Your task to perform on an android device: Check the news Image 0: 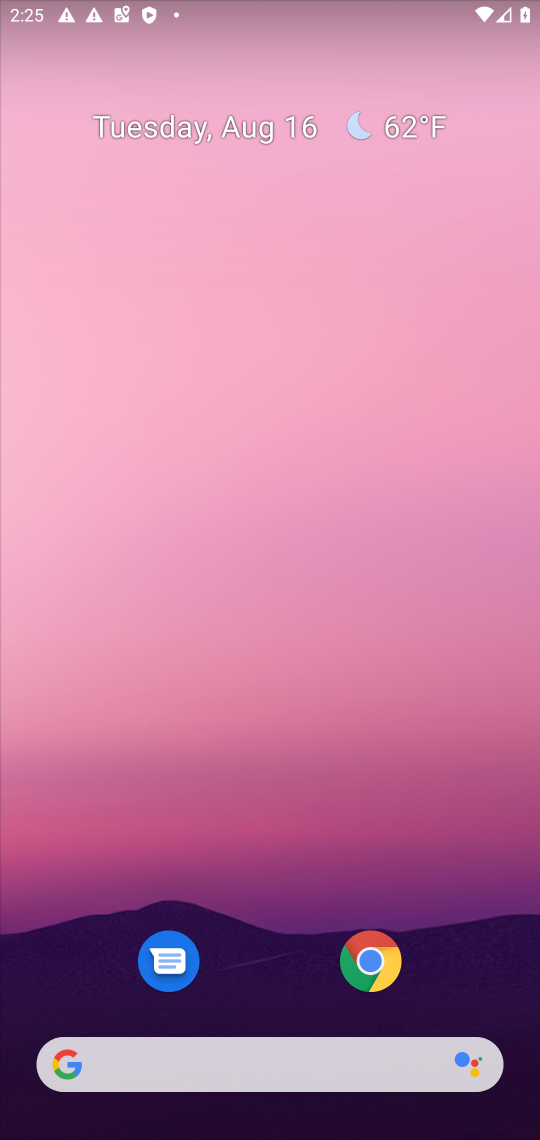
Step 0: drag from (333, 278) to (256, 126)
Your task to perform on an android device: Check the news Image 1: 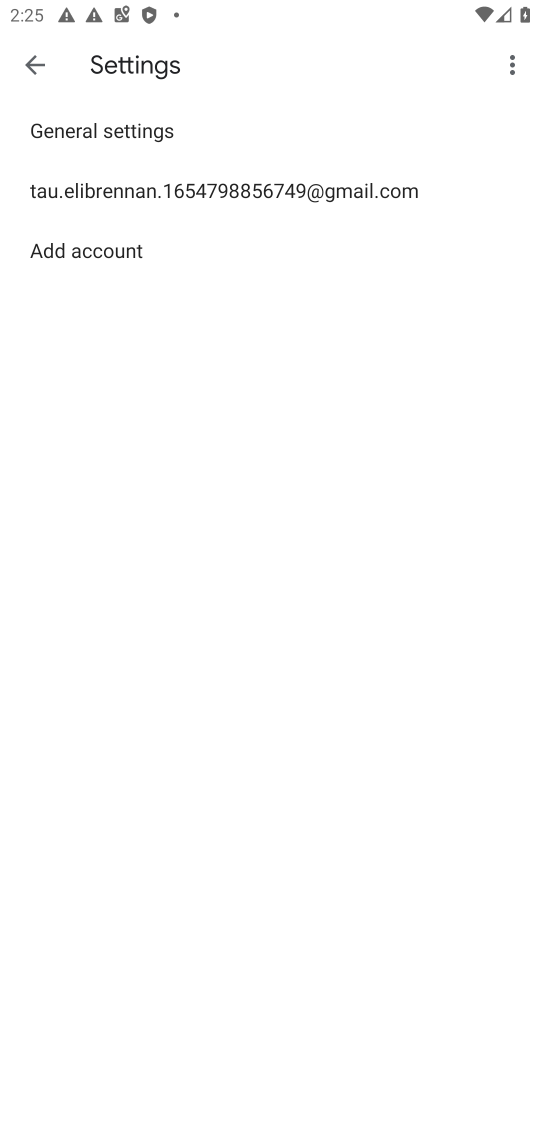
Step 1: press home button
Your task to perform on an android device: Check the news Image 2: 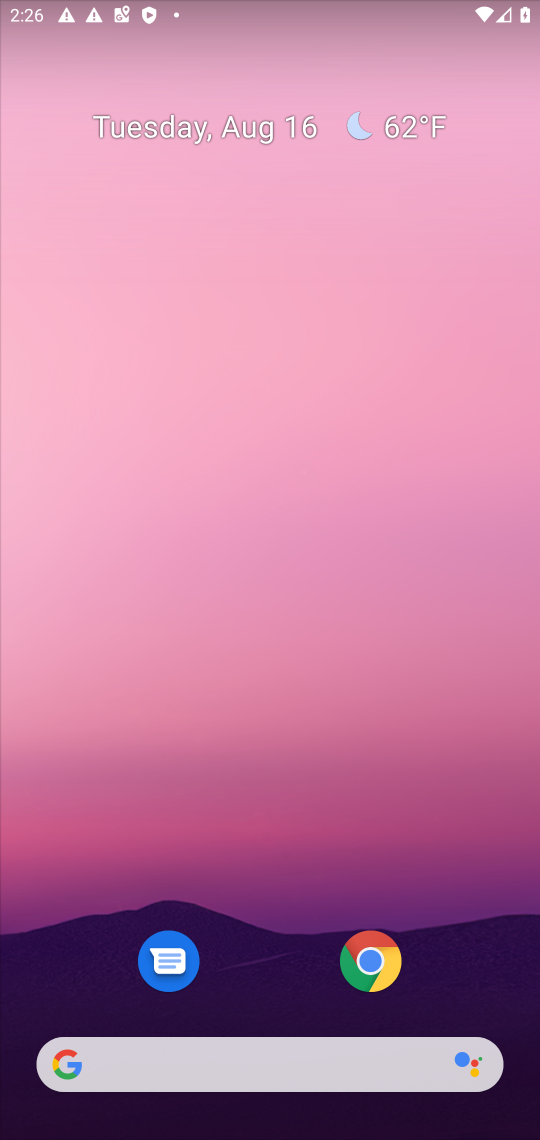
Step 2: drag from (481, 981) to (177, 25)
Your task to perform on an android device: Check the news Image 3: 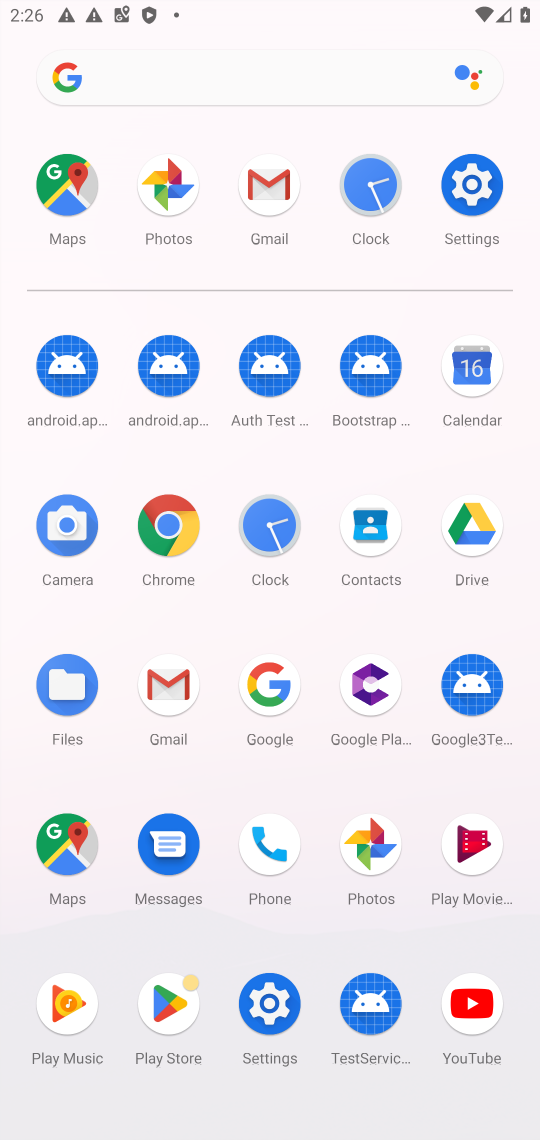
Step 3: click (283, 675)
Your task to perform on an android device: Check the news Image 4: 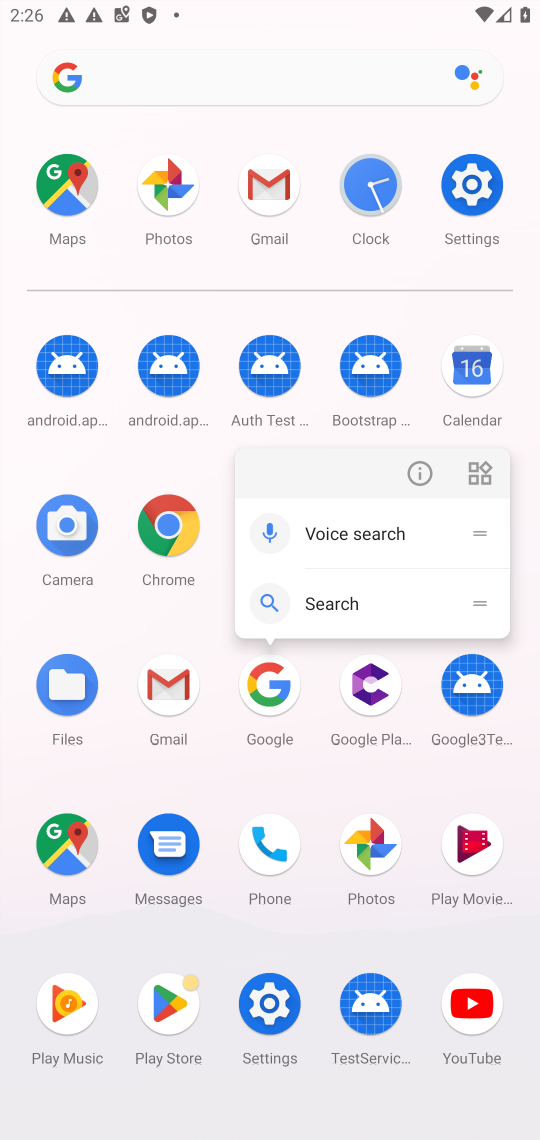
Step 4: click (283, 675)
Your task to perform on an android device: Check the news Image 5: 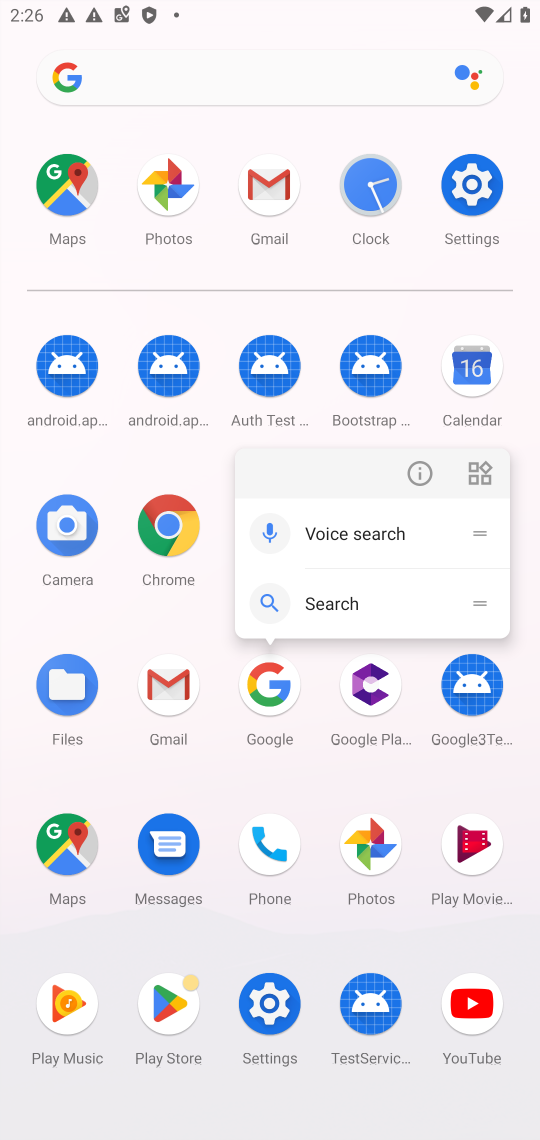
Step 5: click (283, 675)
Your task to perform on an android device: Check the news Image 6: 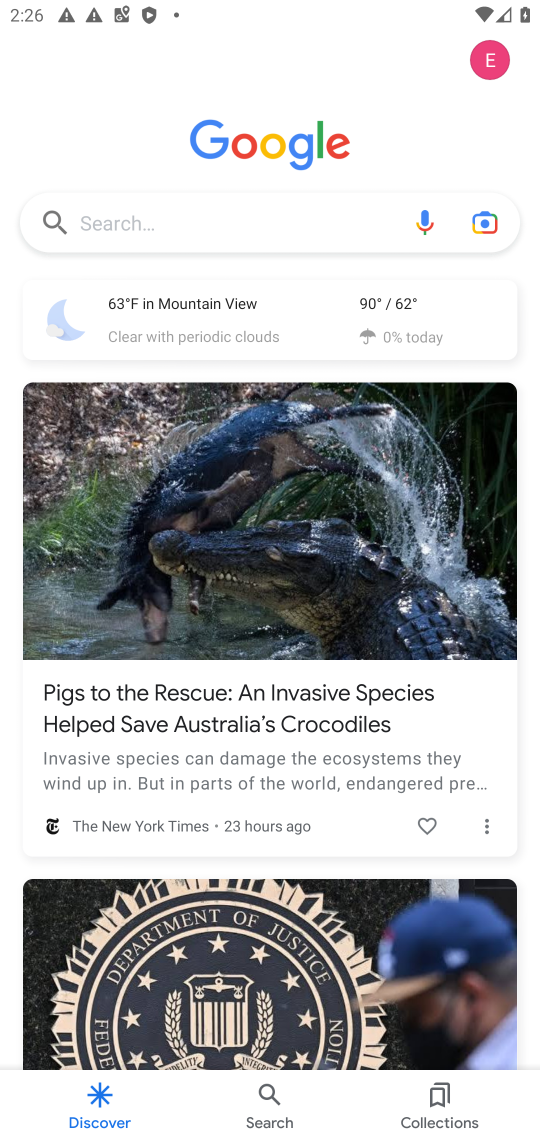
Step 6: click (169, 234)
Your task to perform on an android device: Check the news Image 7: 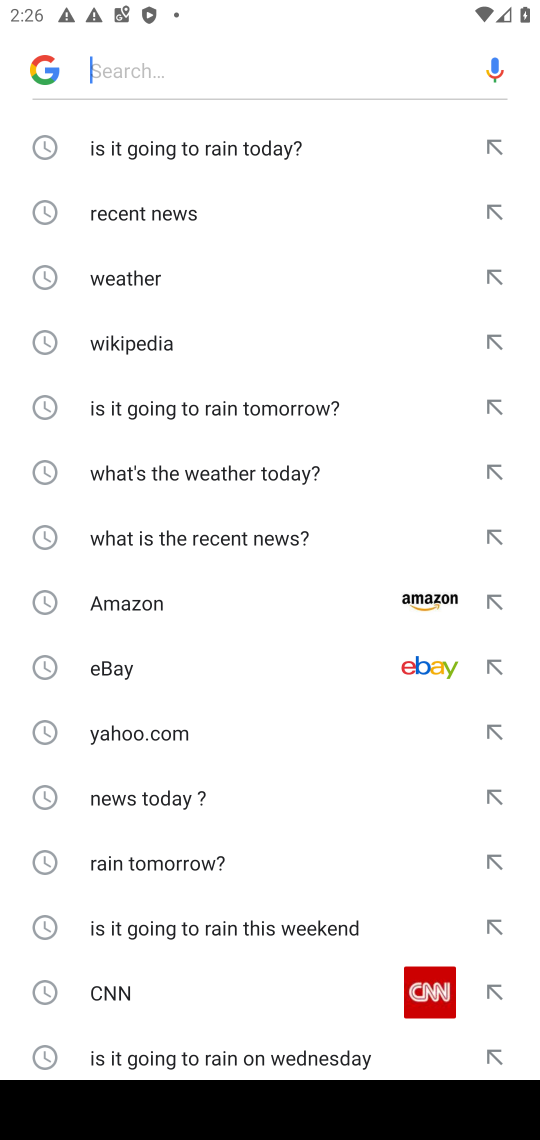
Step 7: type "Check the news"
Your task to perform on an android device: Check the news Image 8: 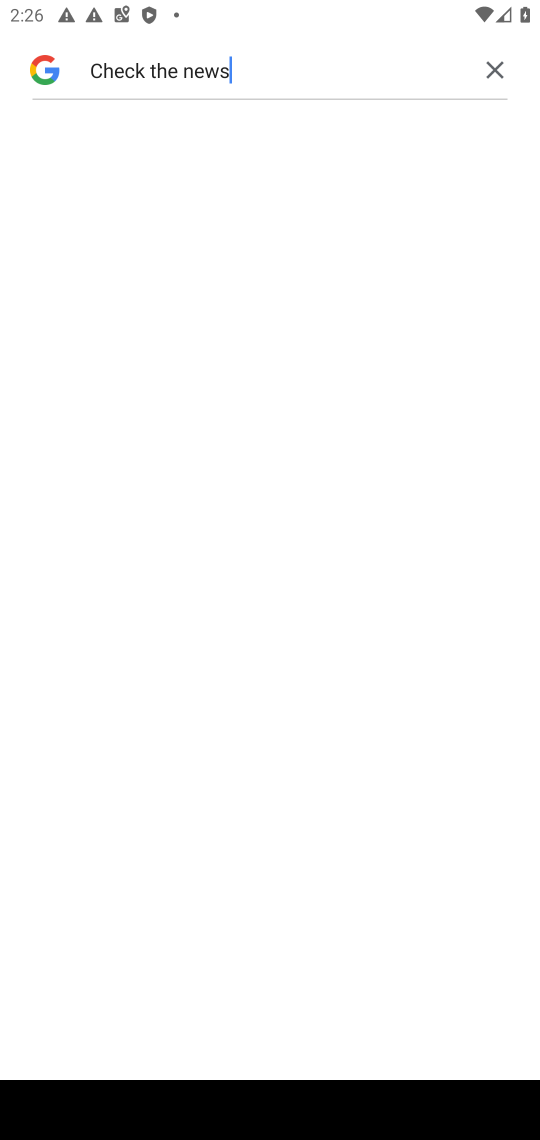
Step 8: task complete